Your task to perform on an android device: Do I have any events this weekend? Image 0: 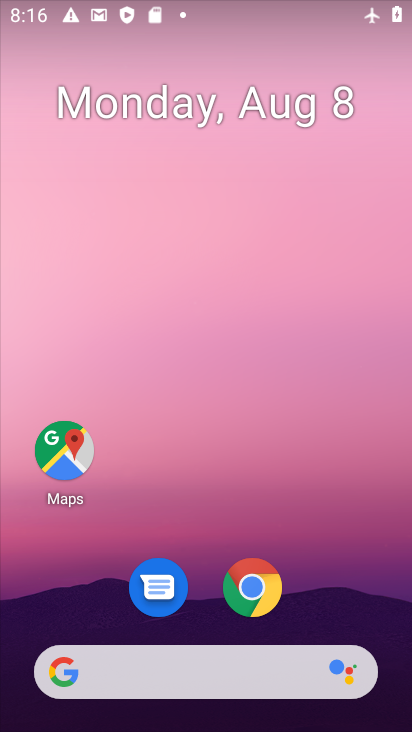
Step 0: drag from (154, 616) to (149, 218)
Your task to perform on an android device: Do I have any events this weekend? Image 1: 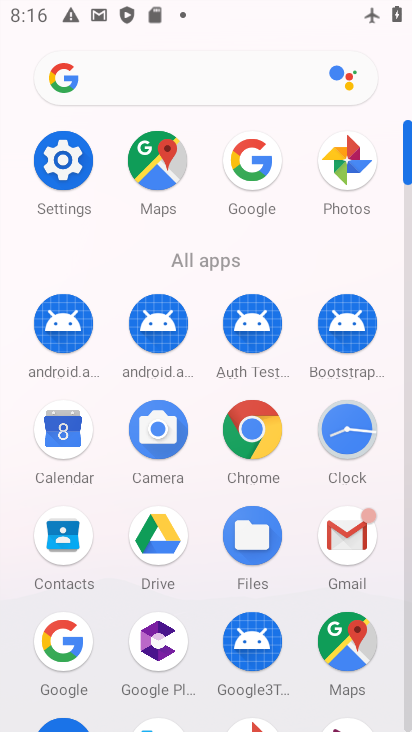
Step 1: click (67, 447)
Your task to perform on an android device: Do I have any events this weekend? Image 2: 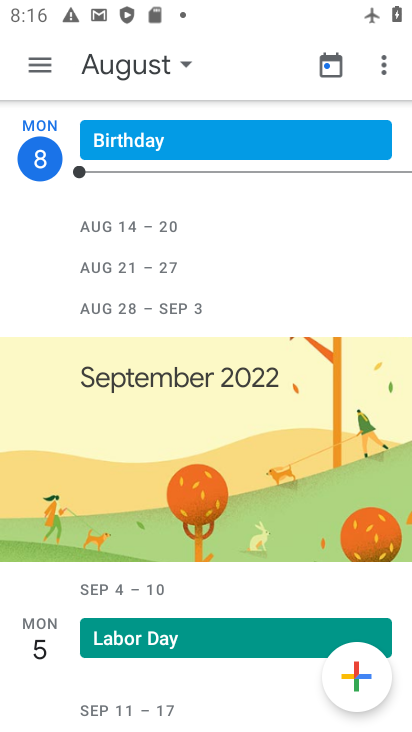
Step 2: click (110, 62)
Your task to perform on an android device: Do I have any events this weekend? Image 3: 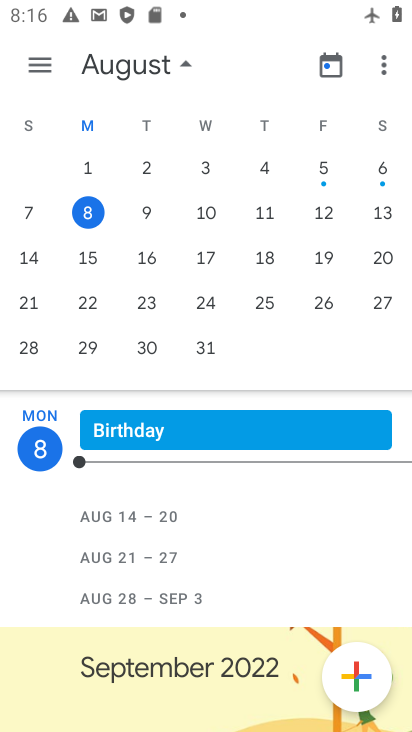
Step 3: click (148, 216)
Your task to perform on an android device: Do I have any events this weekend? Image 4: 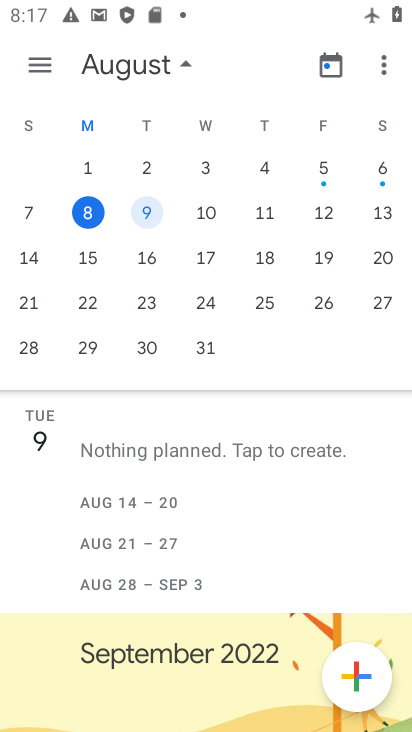
Step 4: click (377, 217)
Your task to perform on an android device: Do I have any events this weekend? Image 5: 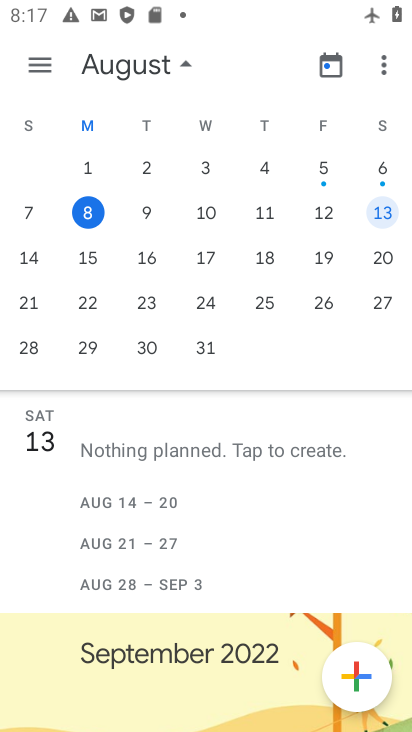
Step 5: click (26, 259)
Your task to perform on an android device: Do I have any events this weekend? Image 6: 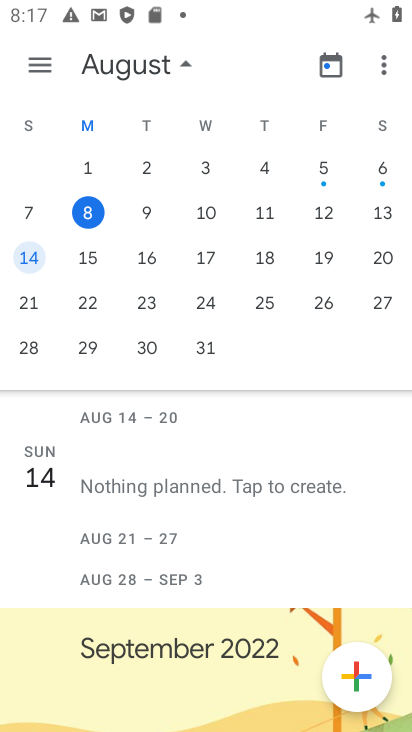
Step 6: task complete